Your task to perform on an android device: turn off improve location accuracy Image 0: 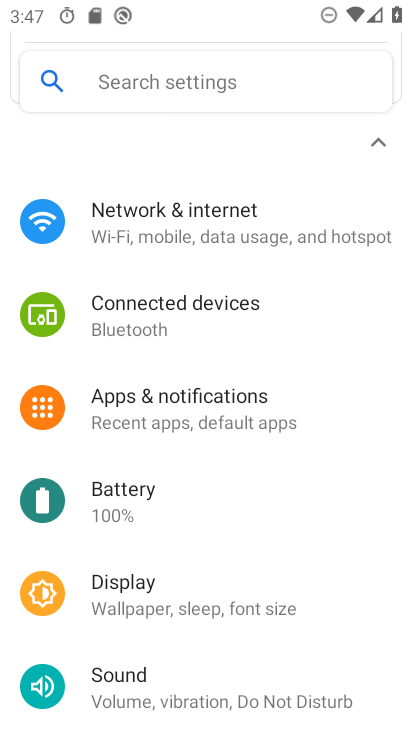
Step 0: drag from (277, 584) to (264, 272)
Your task to perform on an android device: turn off improve location accuracy Image 1: 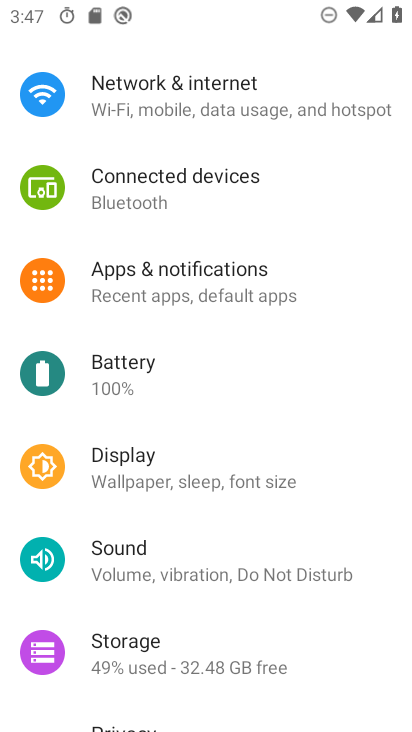
Step 1: drag from (316, 625) to (294, 291)
Your task to perform on an android device: turn off improve location accuracy Image 2: 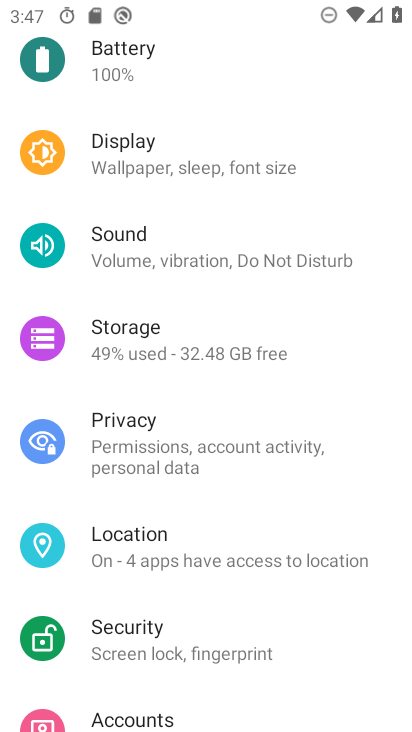
Step 2: click (138, 529)
Your task to perform on an android device: turn off improve location accuracy Image 3: 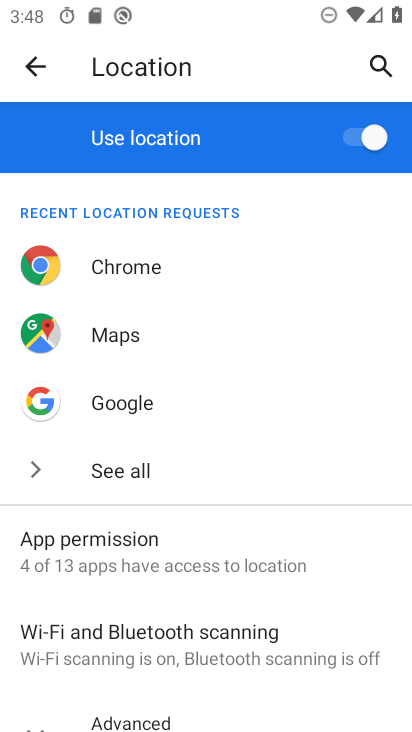
Step 3: drag from (216, 658) to (227, 406)
Your task to perform on an android device: turn off improve location accuracy Image 4: 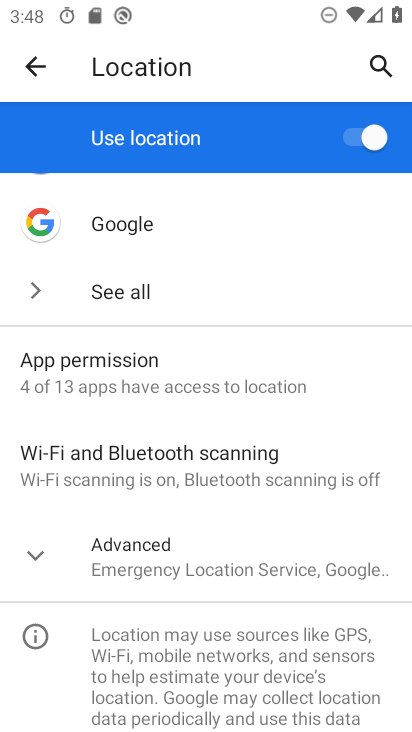
Step 4: click (52, 547)
Your task to perform on an android device: turn off improve location accuracy Image 5: 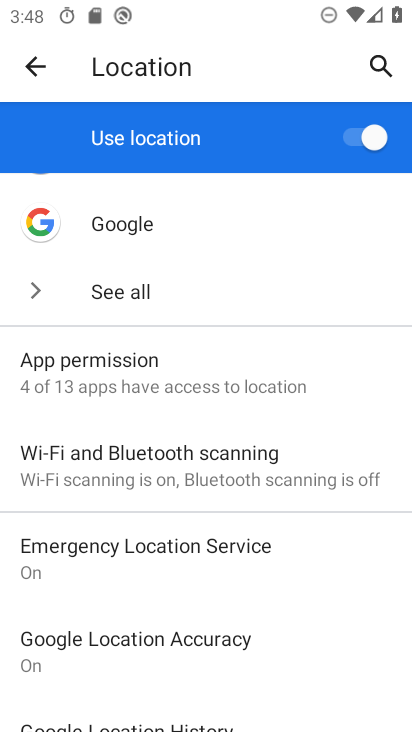
Step 5: drag from (244, 614) to (231, 257)
Your task to perform on an android device: turn off improve location accuracy Image 6: 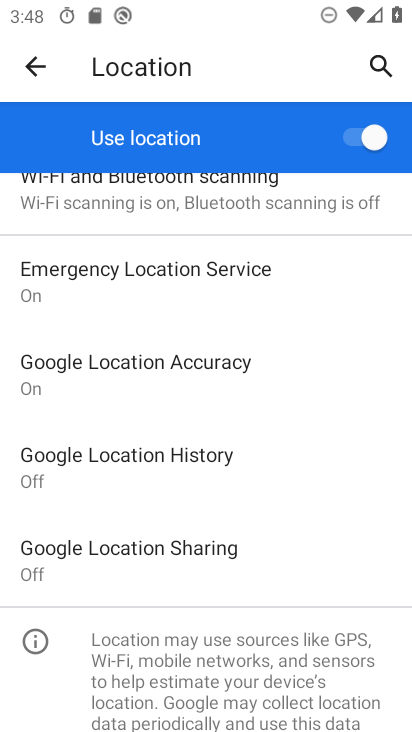
Step 6: click (158, 367)
Your task to perform on an android device: turn off improve location accuracy Image 7: 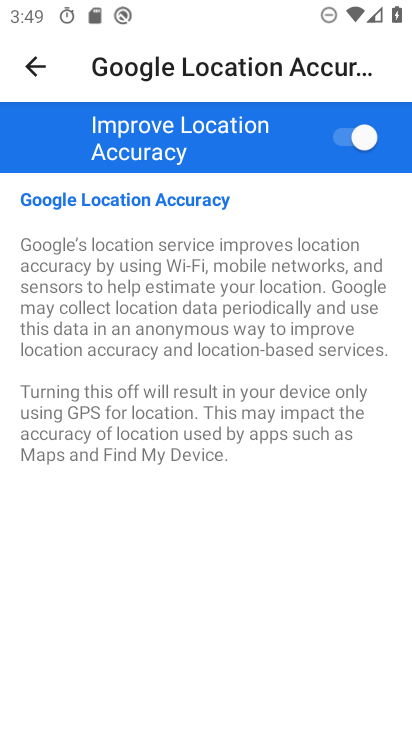
Step 7: click (343, 139)
Your task to perform on an android device: turn off improve location accuracy Image 8: 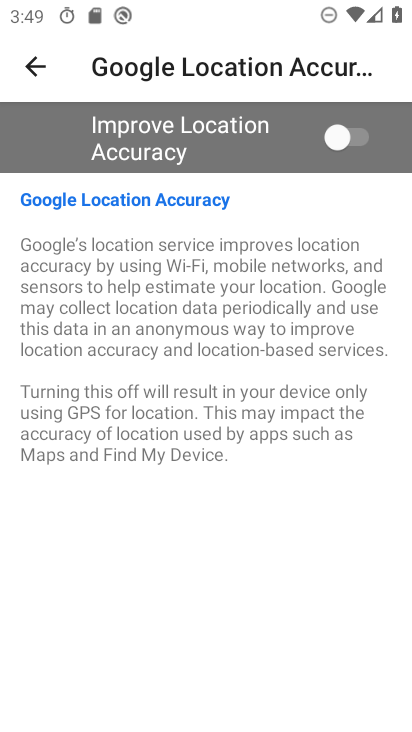
Step 8: task complete